Your task to perform on an android device: open app "Duolingo: language lessons" (install if not already installed), go to login, and select forgot password Image 0: 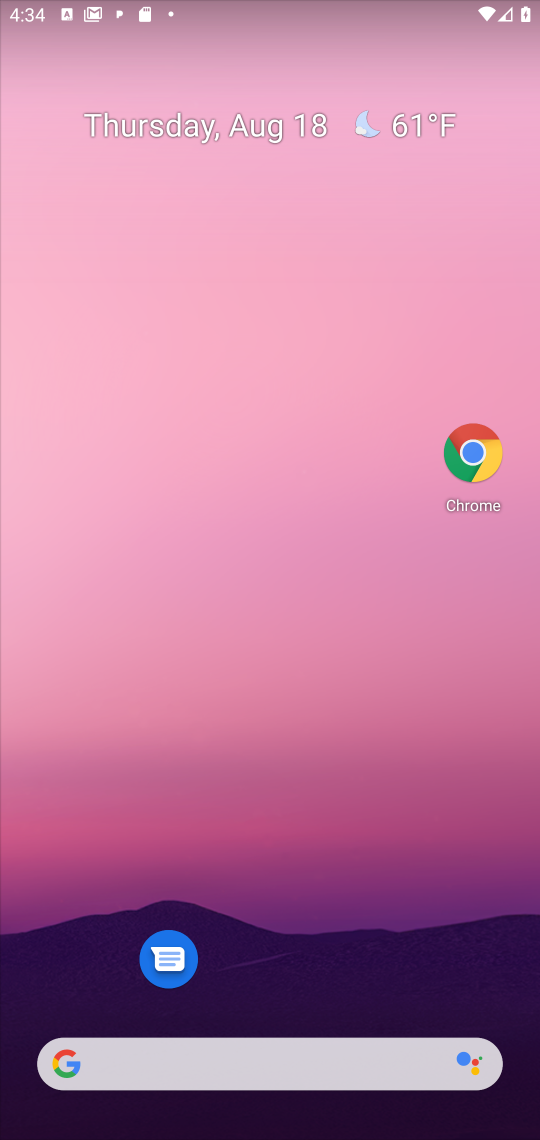
Step 0: drag from (397, 801) to (409, 155)
Your task to perform on an android device: open app "Duolingo: language lessons" (install if not already installed), go to login, and select forgot password Image 1: 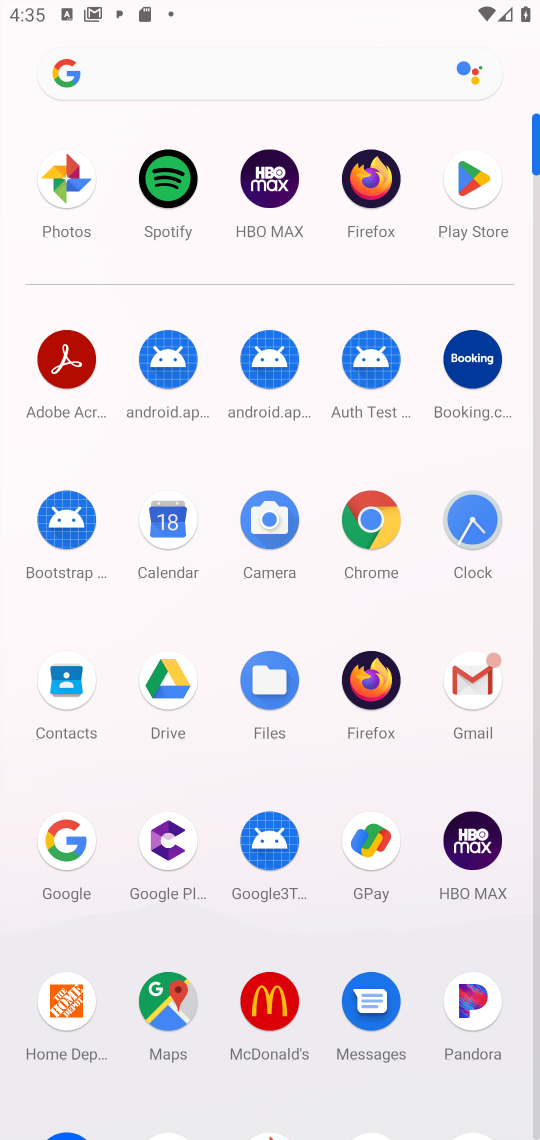
Step 1: click (471, 189)
Your task to perform on an android device: open app "Duolingo: language lessons" (install if not already installed), go to login, and select forgot password Image 2: 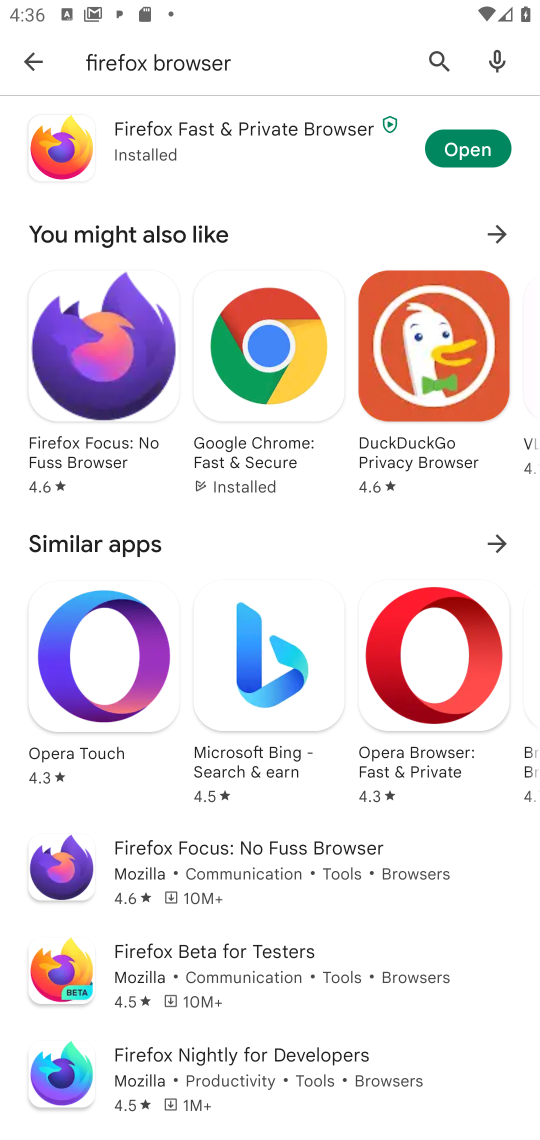
Step 2: click (33, 63)
Your task to perform on an android device: open app "Duolingo: language lessons" (install if not already installed), go to login, and select forgot password Image 3: 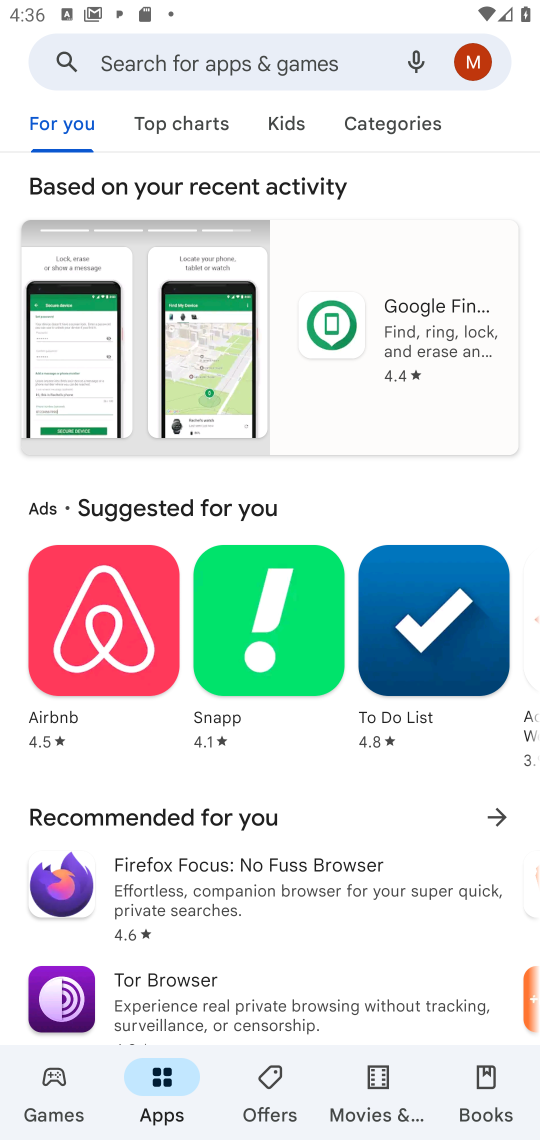
Step 3: click (306, 52)
Your task to perform on an android device: open app "Duolingo: language lessons" (install if not already installed), go to login, and select forgot password Image 4: 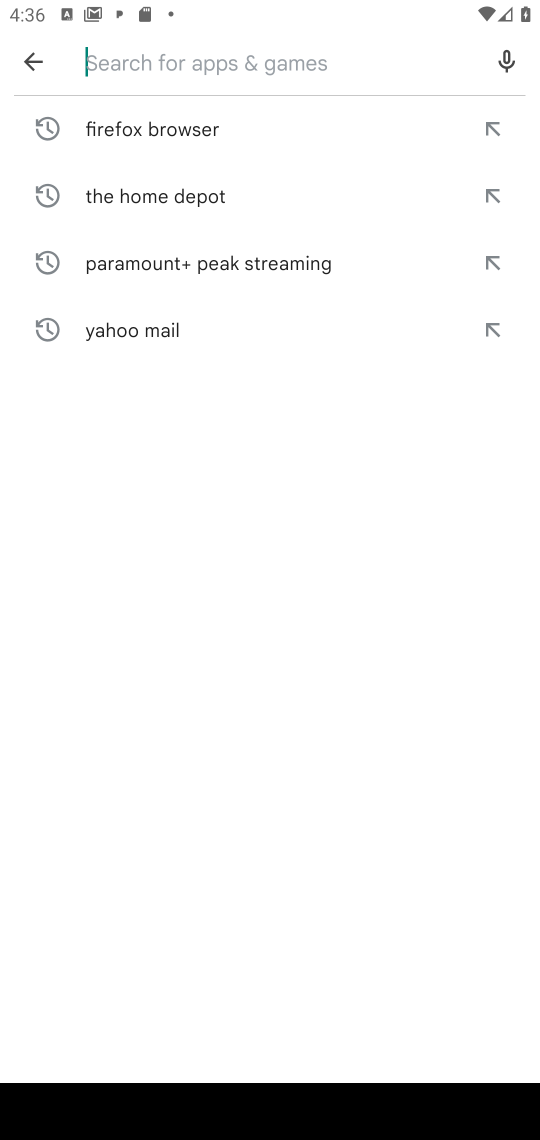
Step 4: type "Duolingo: language lessons"
Your task to perform on an android device: open app "Duolingo: language lessons" (install if not already installed), go to login, and select forgot password Image 5: 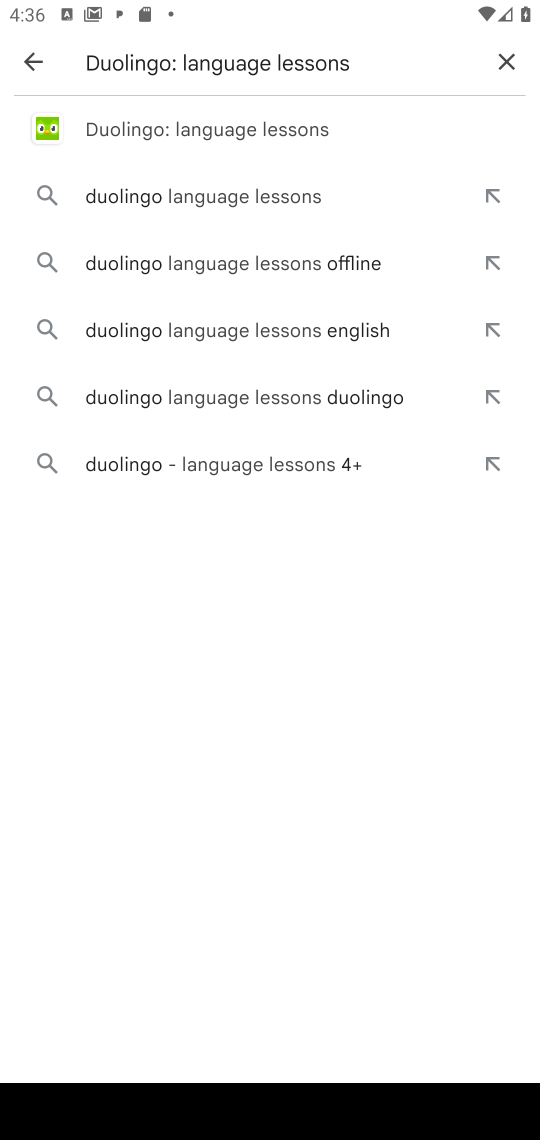
Step 5: click (286, 127)
Your task to perform on an android device: open app "Duolingo: language lessons" (install if not already installed), go to login, and select forgot password Image 6: 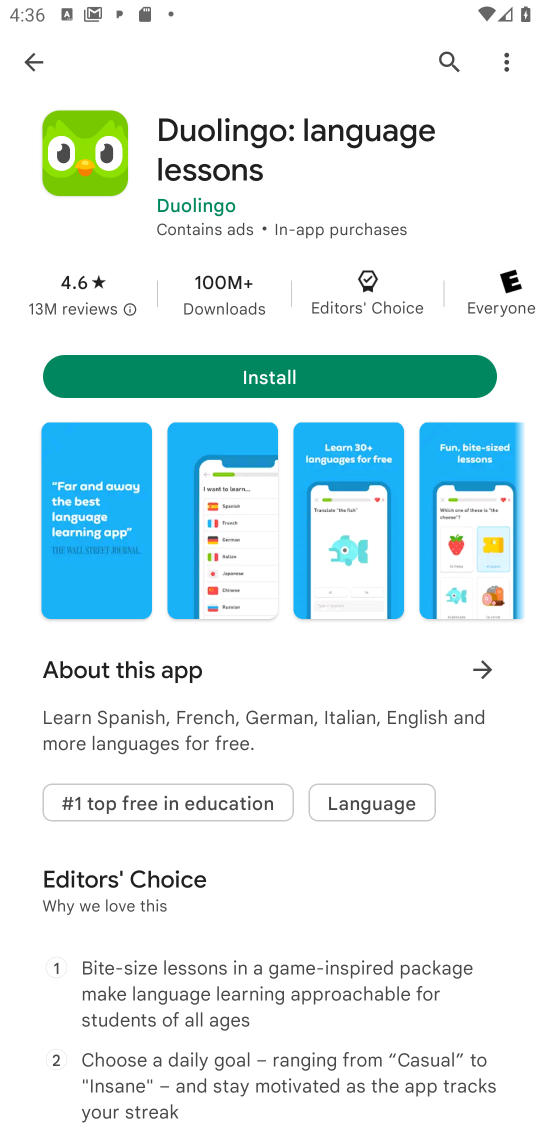
Step 6: click (276, 380)
Your task to perform on an android device: open app "Duolingo: language lessons" (install if not already installed), go to login, and select forgot password Image 7: 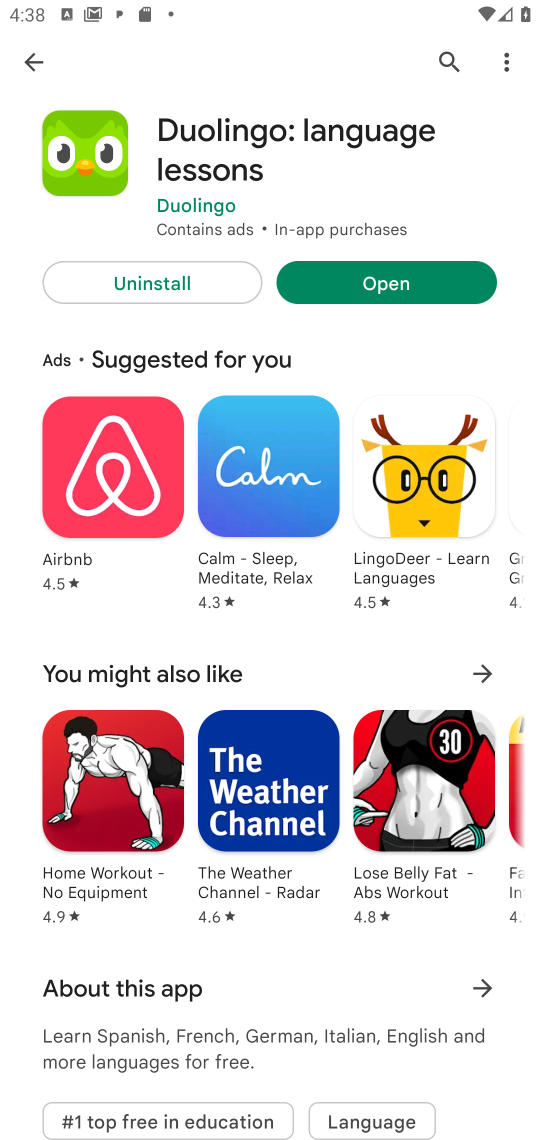
Step 7: click (417, 271)
Your task to perform on an android device: open app "Duolingo: language lessons" (install if not already installed), go to login, and select forgot password Image 8: 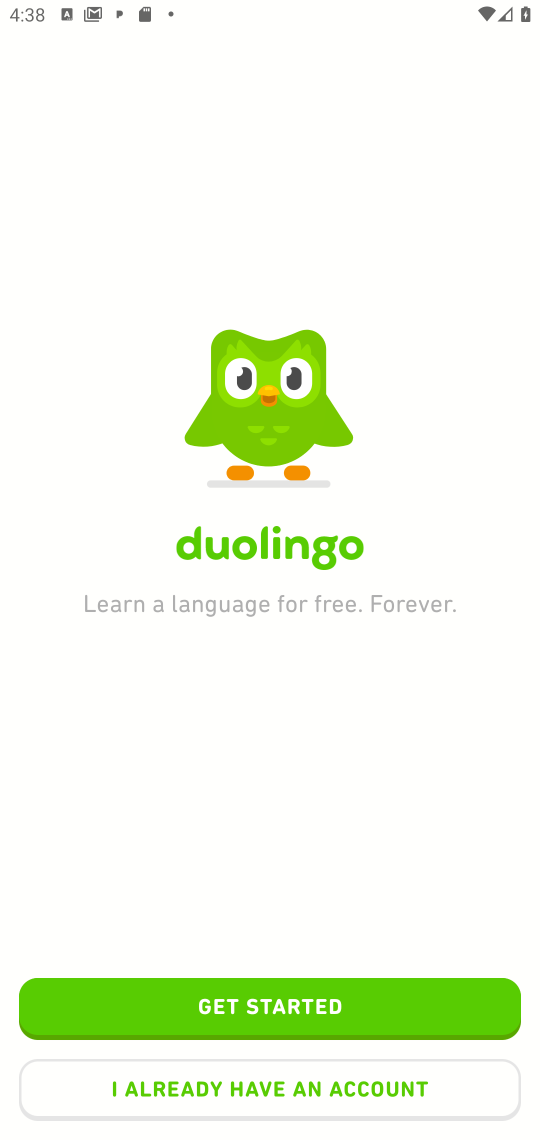
Step 8: task complete